Your task to perform on an android device: turn on the 12-hour format for clock Image 0: 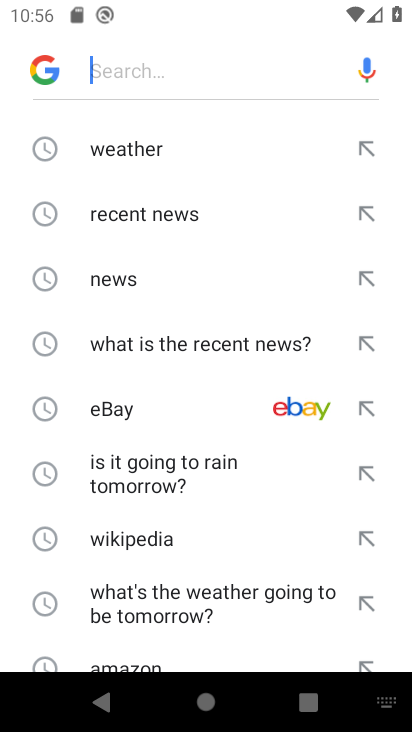
Step 0: press home button
Your task to perform on an android device: turn on the 12-hour format for clock Image 1: 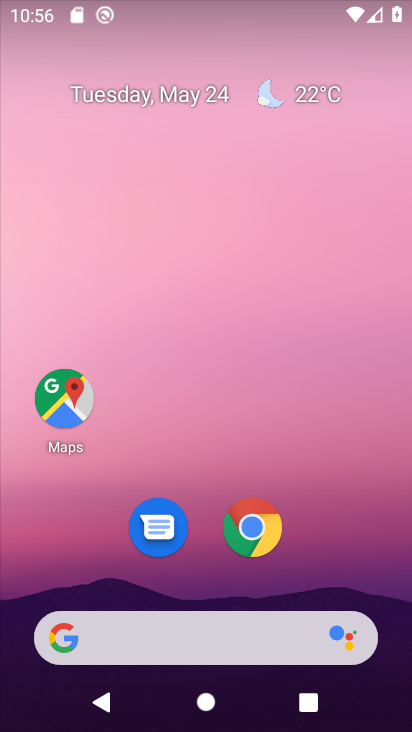
Step 1: drag from (202, 644) to (311, 136)
Your task to perform on an android device: turn on the 12-hour format for clock Image 2: 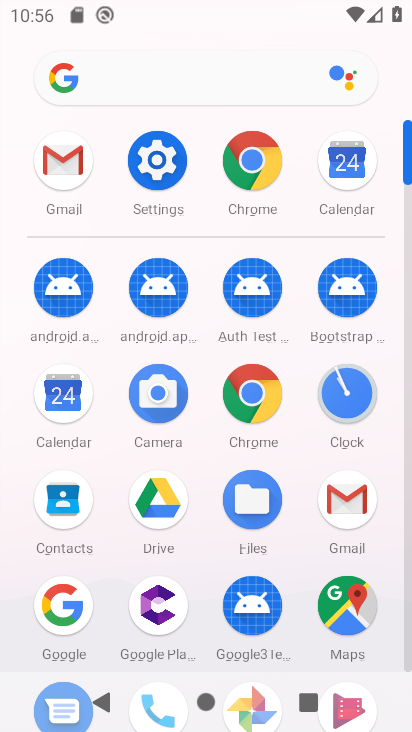
Step 2: click (350, 403)
Your task to perform on an android device: turn on the 12-hour format for clock Image 3: 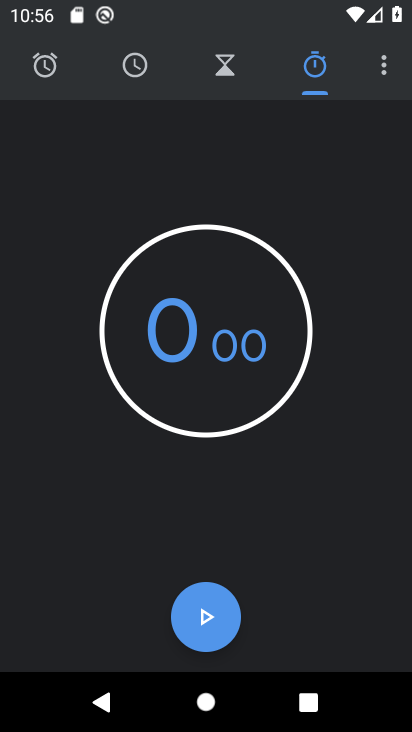
Step 3: click (389, 74)
Your task to perform on an android device: turn on the 12-hour format for clock Image 4: 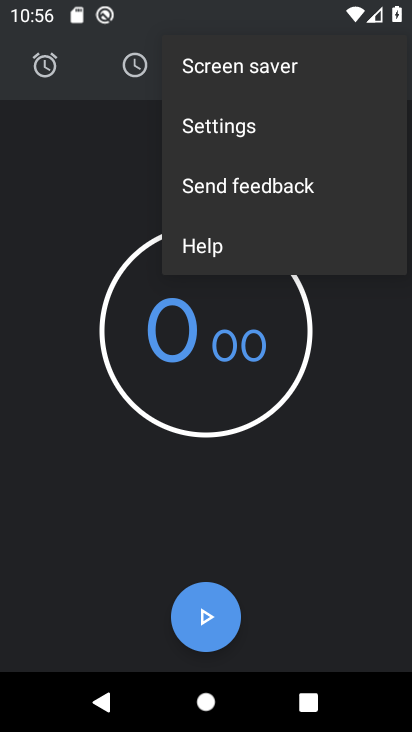
Step 4: click (233, 127)
Your task to perform on an android device: turn on the 12-hour format for clock Image 5: 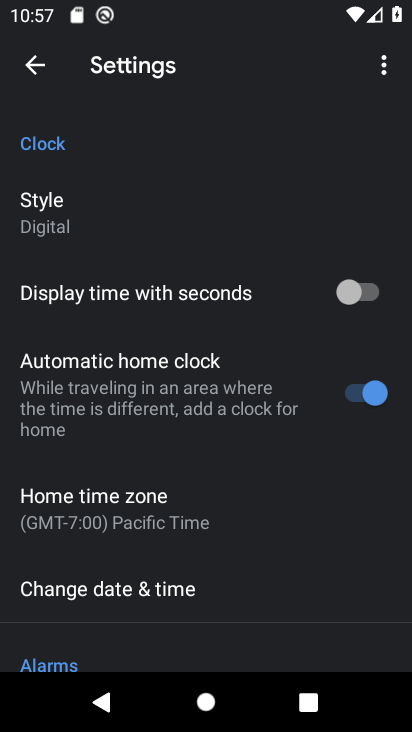
Step 5: click (135, 588)
Your task to perform on an android device: turn on the 12-hour format for clock Image 6: 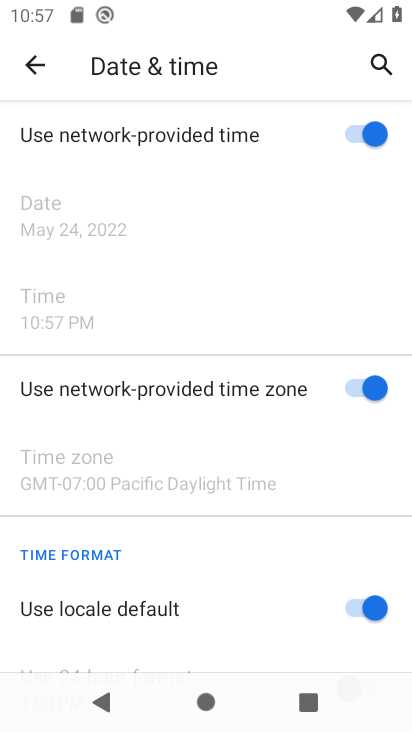
Step 6: task complete